Your task to perform on an android device: Open Yahoo.com Image 0: 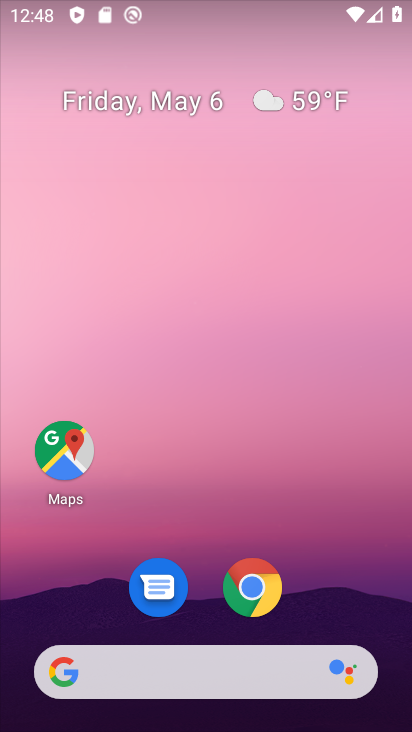
Step 0: drag from (232, 603) to (346, 52)
Your task to perform on an android device: Open Yahoo.com Image 1: 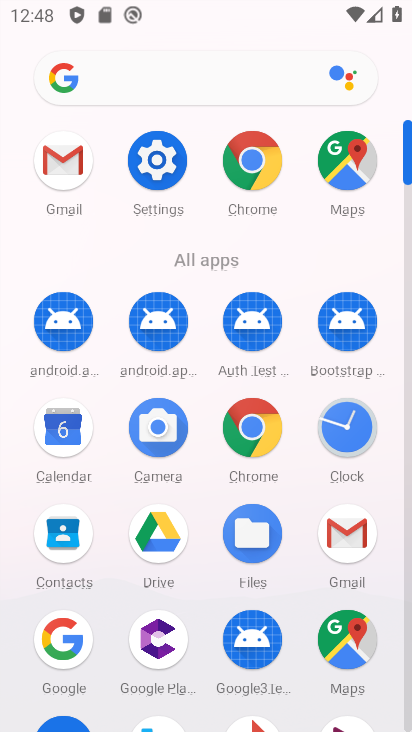
Step 1: drag from (199, 539) to (245, 262)
Your task to perform on an android device: Open Yahoo.com Image 2: 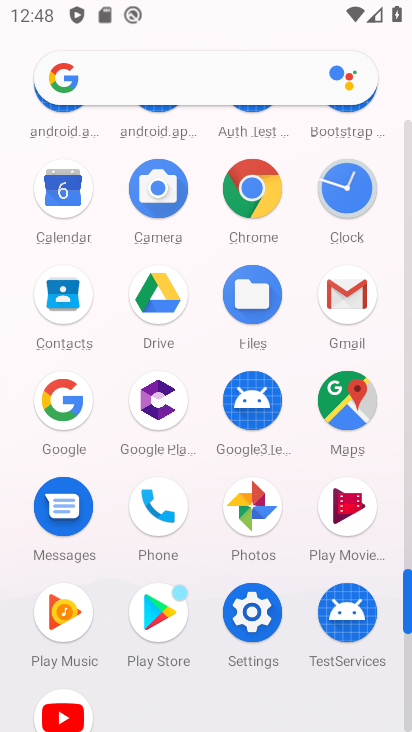
Step 2: click (257, 221)
Your task to perform on an android device: Open Yahoo.com Image 3: 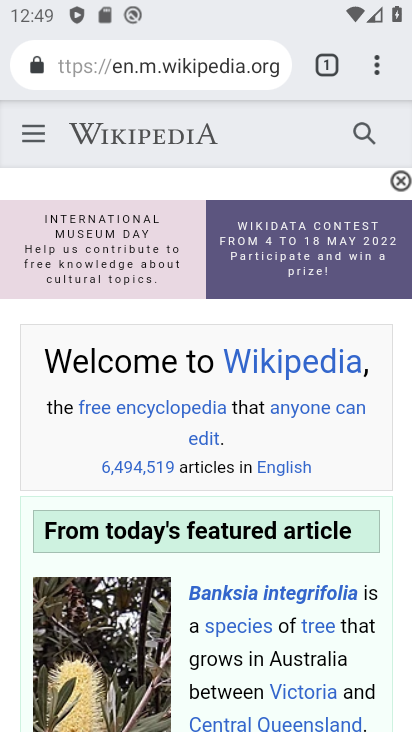
Step 3: click (244, 89)
Your task to perform on an android device: Open Yahoo.com Image 4: 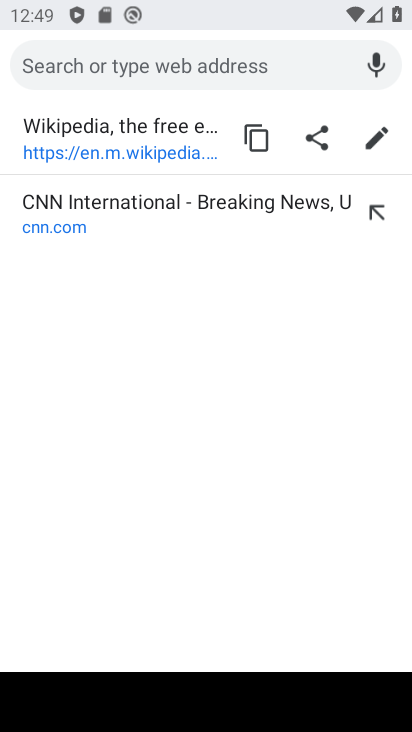
Step 4: type "yahoo.com"
Your task to perform on an android device: Open Yahoo.com Image 5: 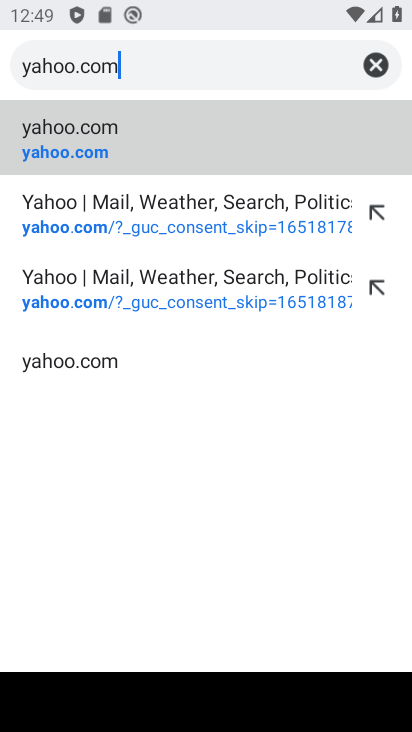
Step 5: click (83, 134)
Your task to perform on an android device: Open Yahoo.com Image 6: 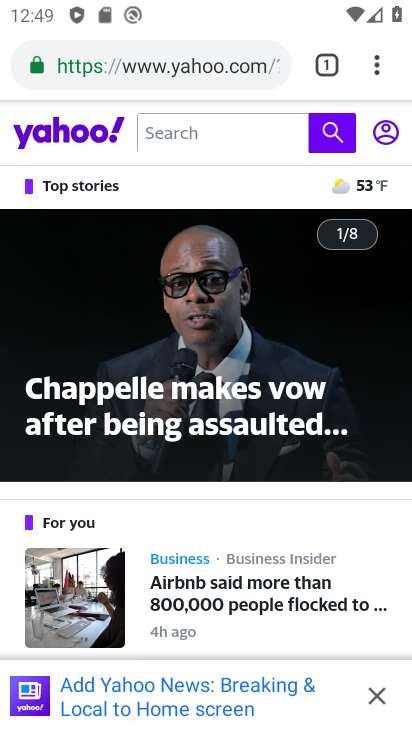
Step 6: task complete